Your task to perform on an android device: Play the last video I watched on Youtube Image 0: 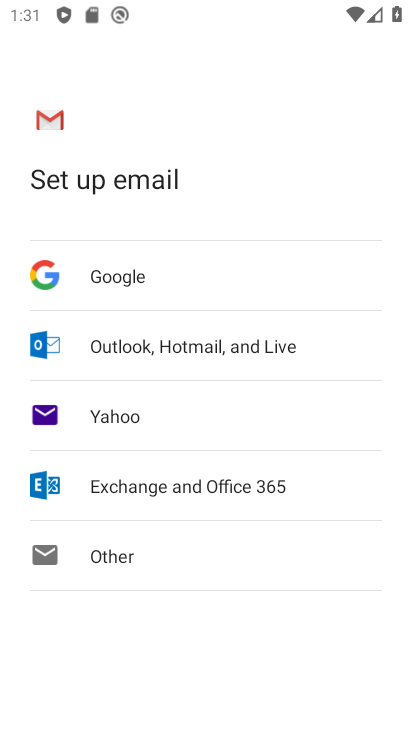
Step 0: click (339, 681)
Your task to perform on an android device: Play the last video I watched on Youtube Image 1: 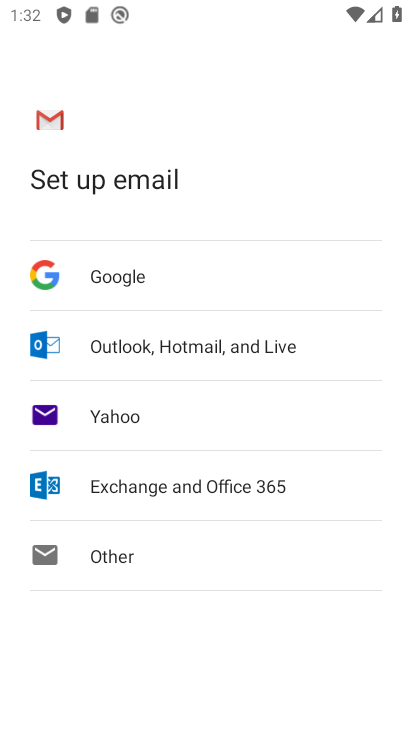
Step 1: press home button
Your task to perform on an android device: Play the last video I watched on Youtube Image 2: 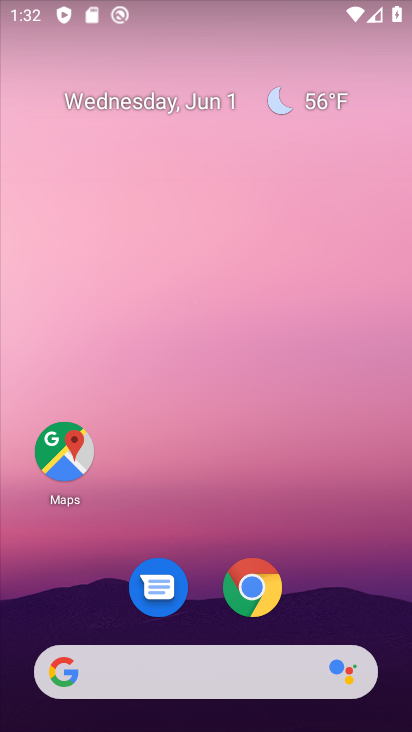
Step 2: drag from (342, 91) to (346, 19)
Your task to perform on an android device: Play the last video I watched on Youtube Image 3: 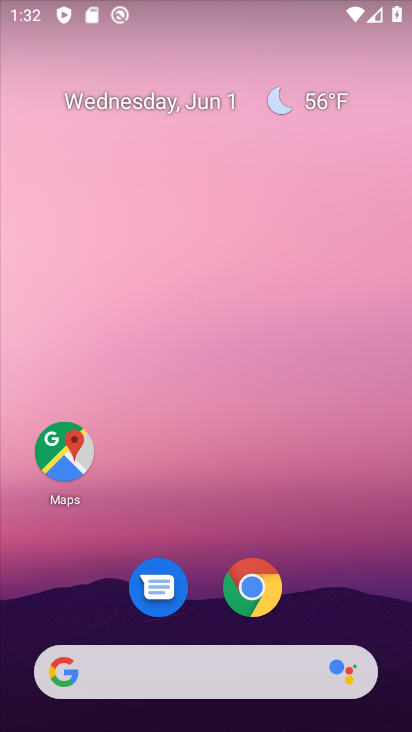
Step 3: drag from (380, 624) to (371, 46)
Your task to perform on an android device: Play the last video I watched on Youtube Image 4: 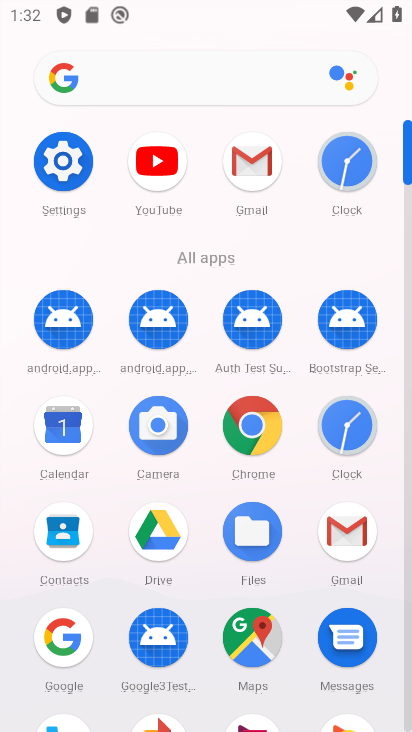
Step 4: click (406, 694)
Your task to perform on an android device: Play the last video I watched on Youtube Image 5: 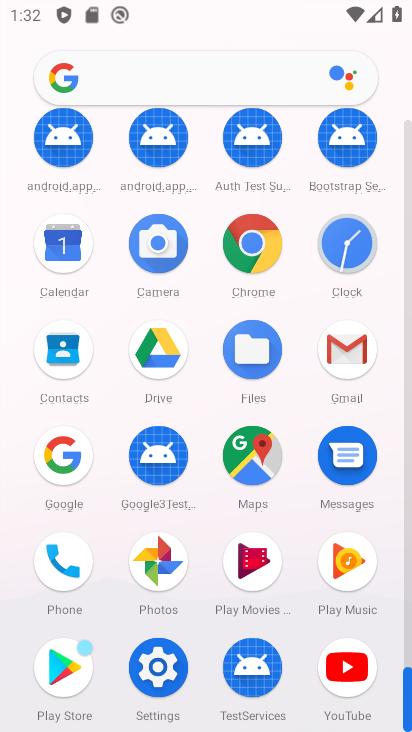
Step 5: click (345, 667)
Your task to perform on an android device: Play the last video I watched on Youtube Image 6: 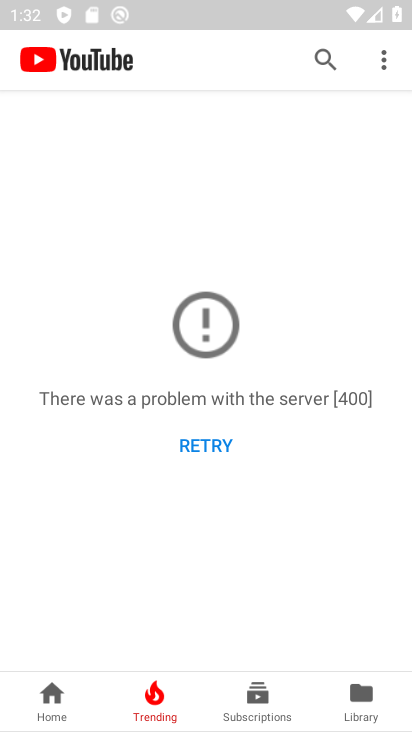
Step 6: click (345, 692)
Your task to perform on an android device: Play the last video I watched on Youtube Image 7: 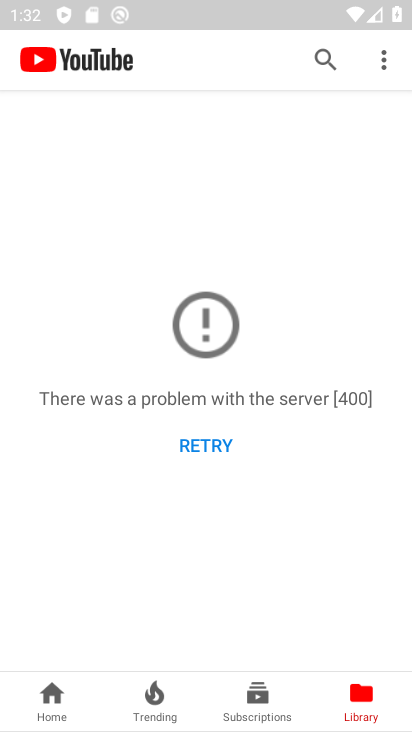
Step 7: task complete